Your task to perform on an android device: change the clock style Image 0: 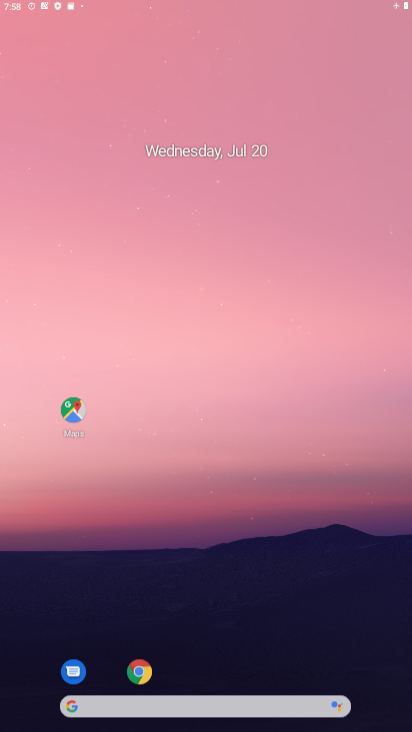
Step 0: click (114, 0)
Your task to perform on an android device: change the clock style Image 1: 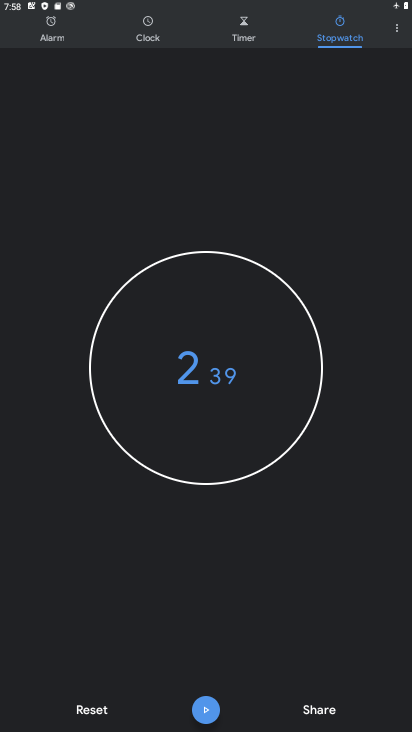
Step 1: press home button
Your task to perform on an android device: change the clock style Image 2: 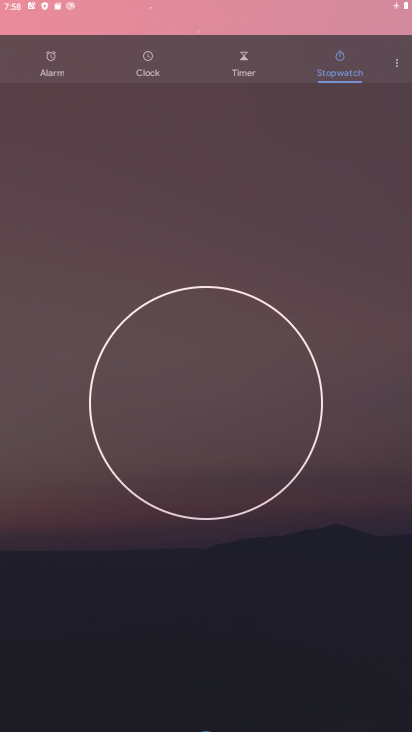
Step 2: drag from (398, 657) to (220, 60)
Your task to perform on an android device: change the clock style Image 3: 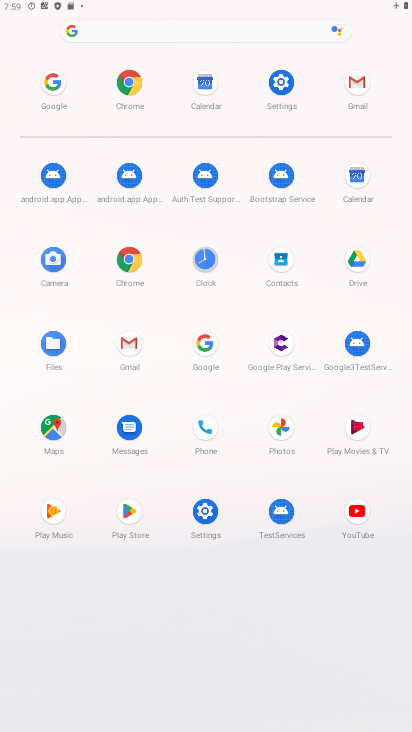
Step 3: click (202, 252)
Your task to perform on an android device: change the clock style Image 4: 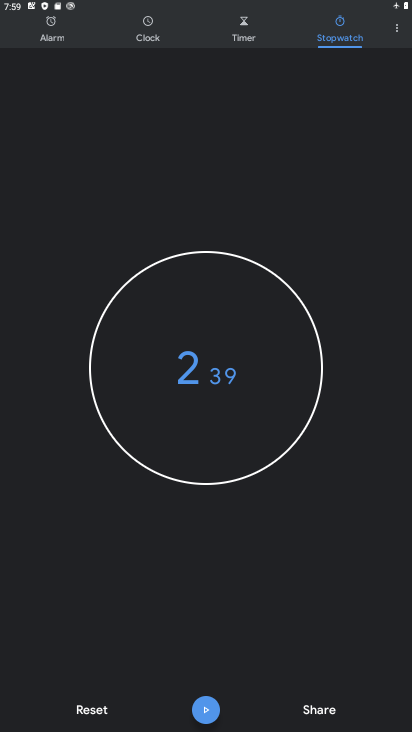
Step 4: click (395, 23)
Your task to perform on an android device: change the clock style Image 5: 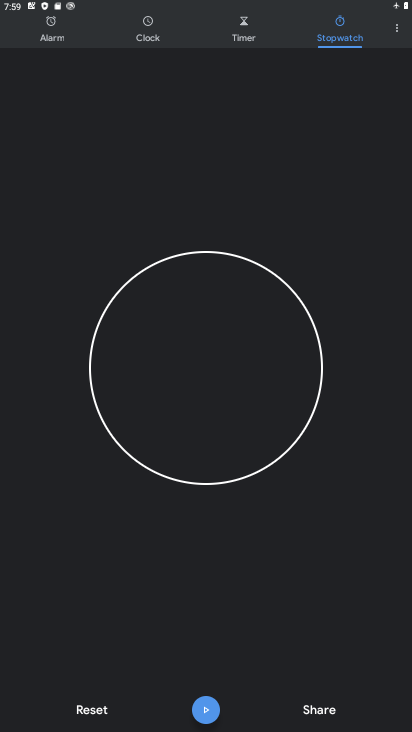
Step 5: click (398, 29)
Your task to perform on an android device: change the clock style Image 6: 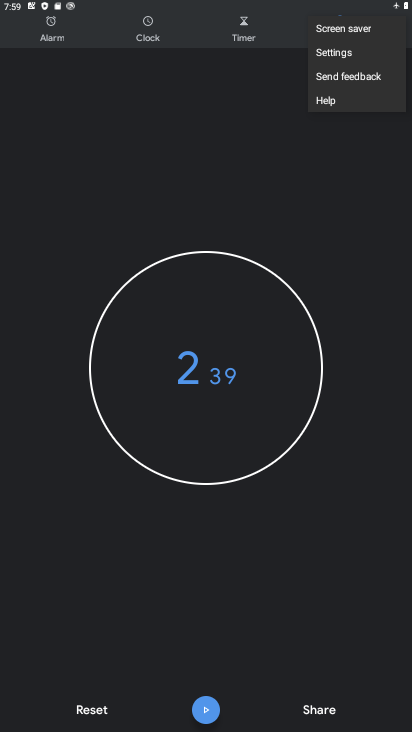
Step 6: click (331, 58)
Your task to perform on an android device: change the clock style Image 7: 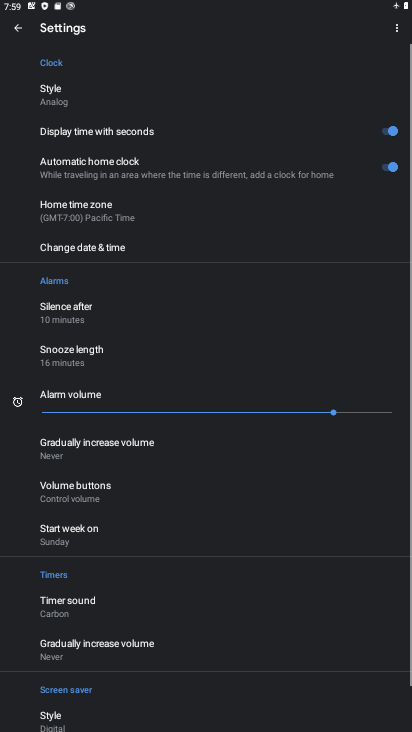
Step 7: click (61, 100)
Your task to perform on an android device: change the clock style Image 8: 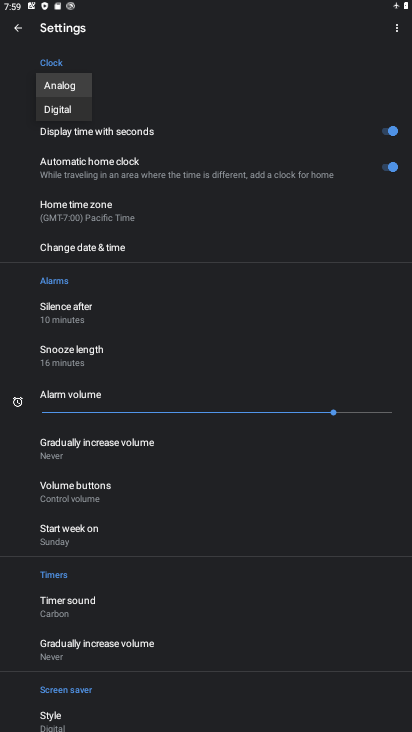
Step 8: click (63, 103)
Your task to perform on an android device: change the clock style Image 9: 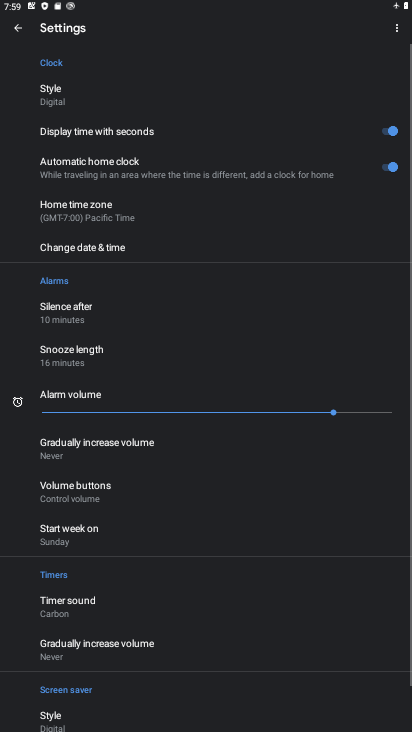
Step 9: task complete